Your task to perform on an android device: create a new album in the google photos Image 0: 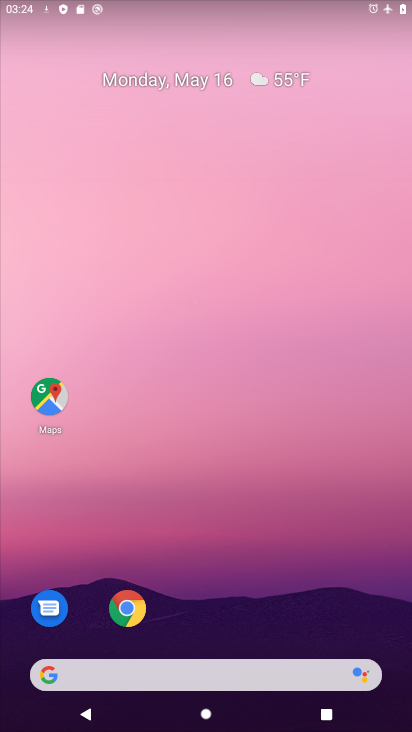
Step 0: drag from (208, 621) to (208, 148)
Your task to perform on an android device: create a new album in the google photos Image 1: 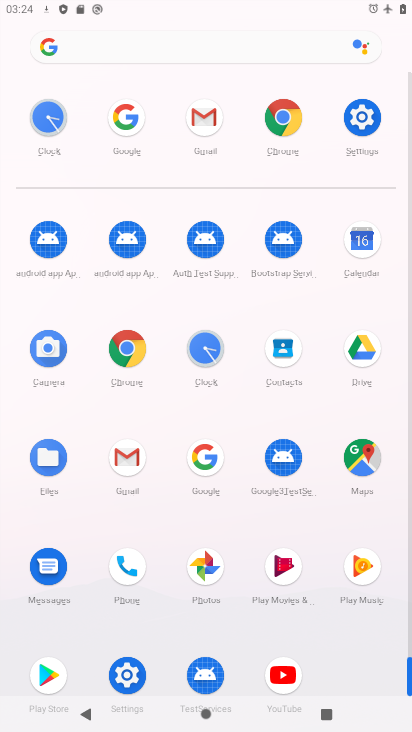
Step 1: click (201, 571)
Your task to perform on an android device: create a new album in the google photos Image 2: 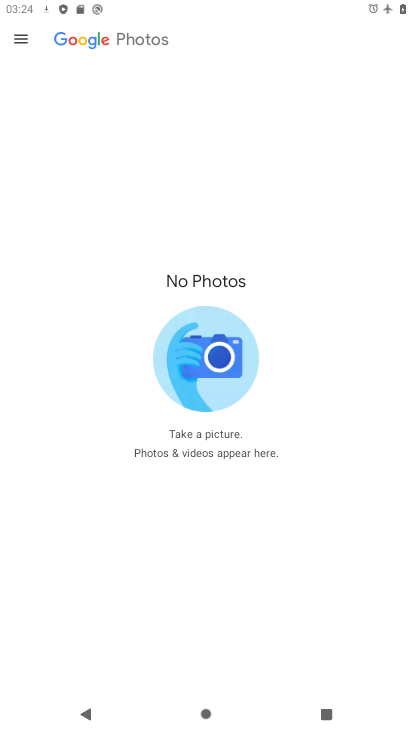
Step 2: click (18, 42)
Your task to perform on an android device: create a new album in the google photos Image 3: 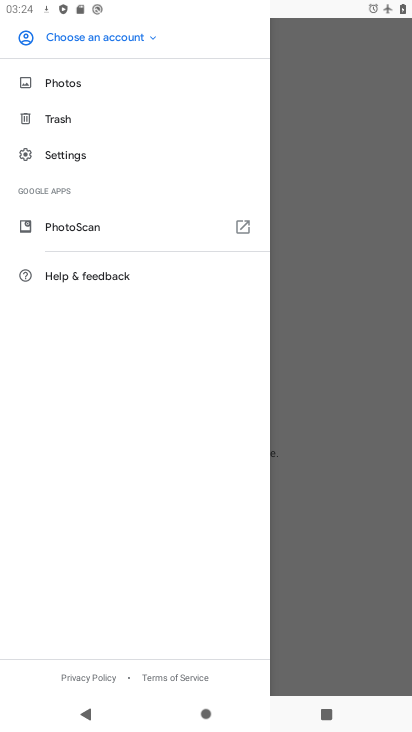
Step 3: click (64, 75)
Your task to perform on an android device: create a new album in the google photos Image 4: 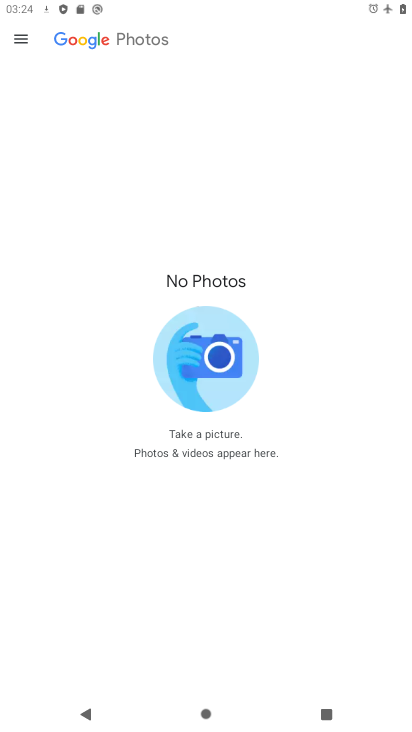
Step 4: task complete